Your task to perform on an android device: Go to network settings Image 0: 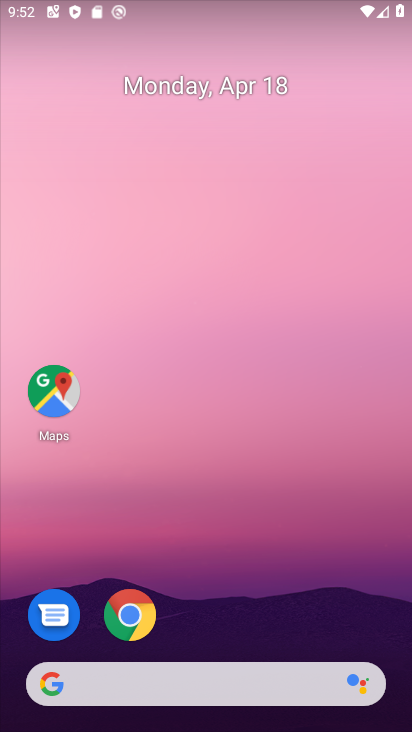
Step 0: drag from (211, 622) to (276, 345)
Your task to perform on an android device: Go to network settings Image 1: 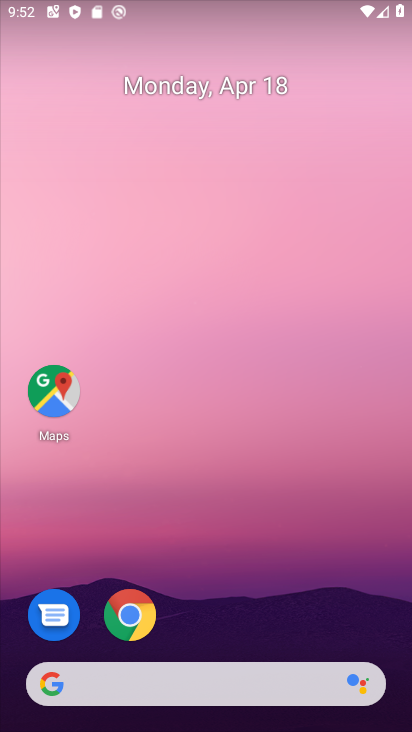
Step 1: drag from (238, 661) to (332, 234)
Your task to perform on an android device: Go to network settings Image 2: 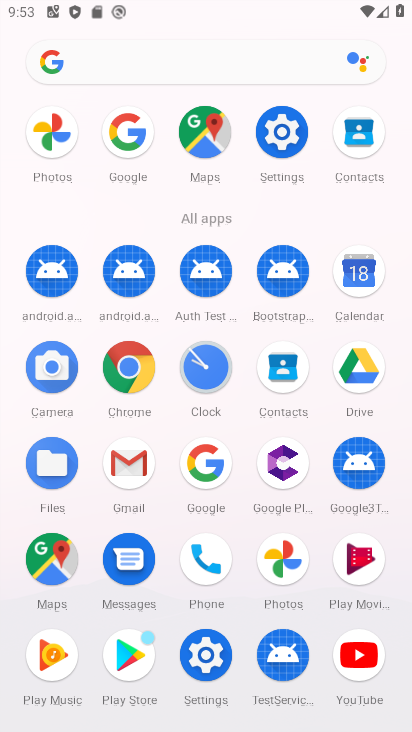
Step 2: click (287, 124)
Your task to perform on an android device: Go to network settings Image 3: 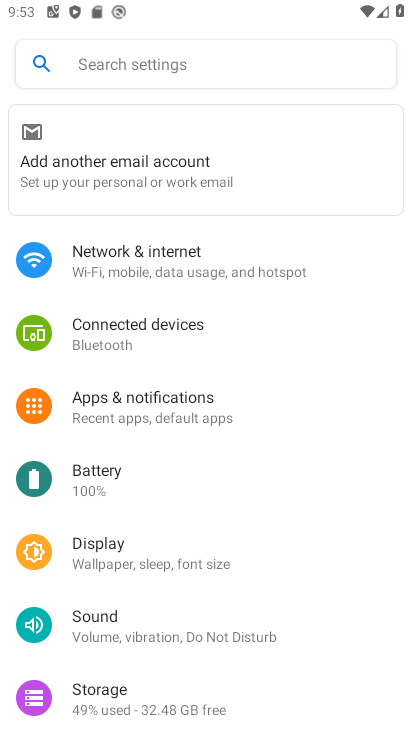
Step 3: click (177, 270)
Your task to perform on an android device: Go to network settings Image 4: 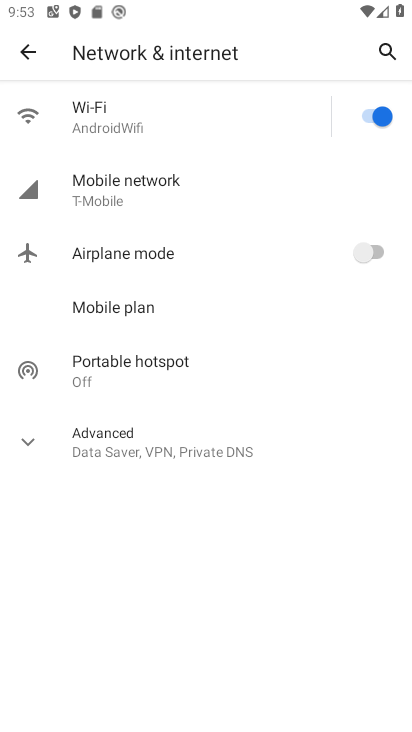
Step 4: click (148, 188)
Your task to perform on an android device: Go to network settings Image 5: 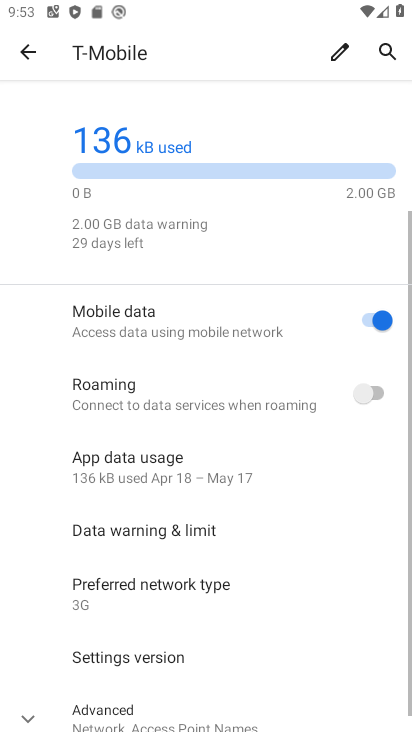
Step 5: task complete